Your task to perform on an android device: Open sound settings Image 0: 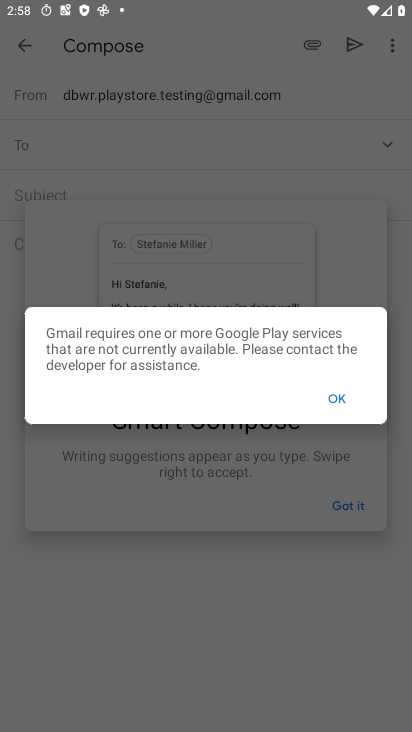
Step 0: press home button
Your task to perform on an android device: Open sound settings Image 1: 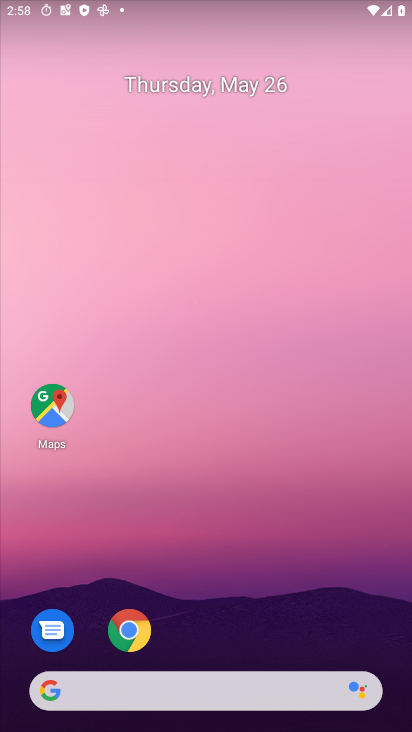
Step 1: drag from (226, 598) to (291, 146)
Your task to perform on an android device: Open sound settings Image 2: 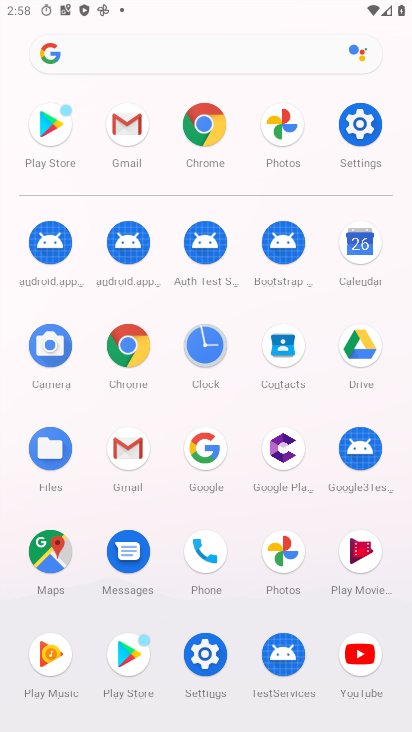
Step 2: click (395, 125)
Your task to perform on an android device: Open sound settings Image 3: 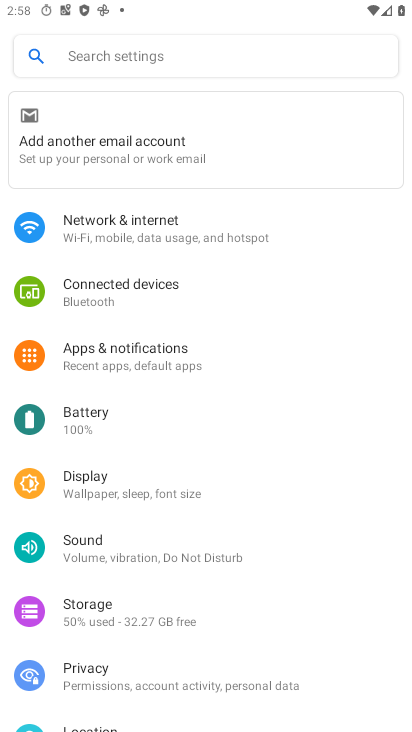
Step 3: click (133, 525)
Your task to perform on an android device: Open sound settings Image 4: 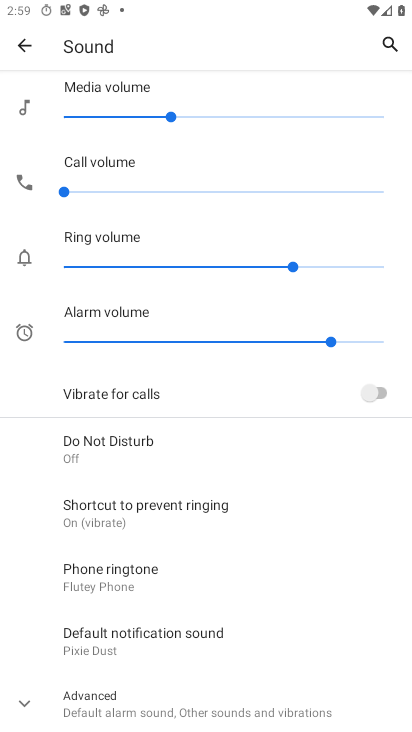
Step 4: task complete